Your task to perform on an android device: change timer sound Image 0: 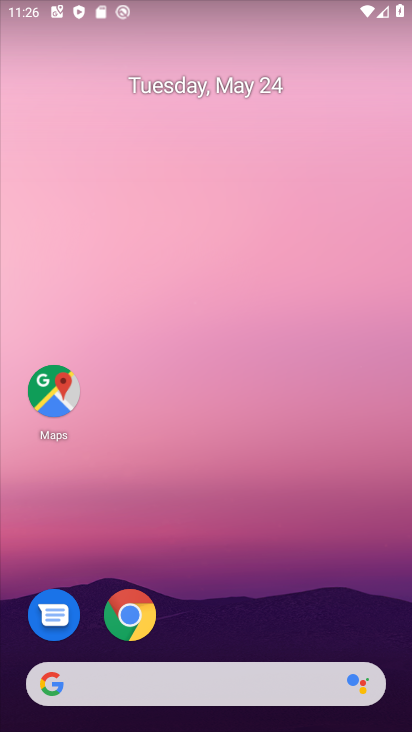
Step 0: drag from (228, 591) to (270, 41)
Your task to perform on an android device: change timer sound Image 1: 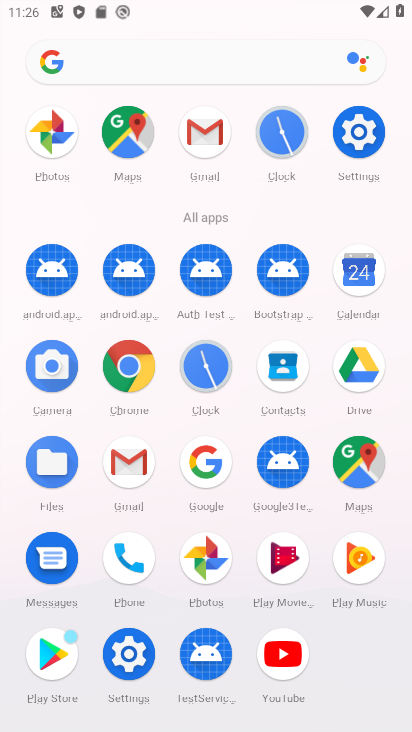
Step 1: click (207, 367)
Your task to perform on an android device: change timer sound Image 2: 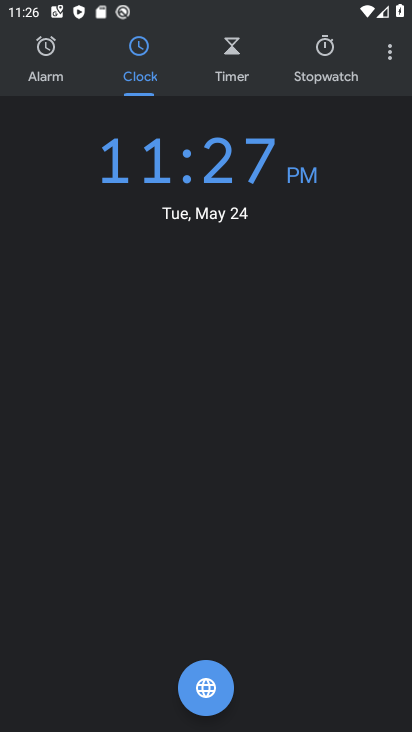
Step 2: click (389, 58)
Your task to perform on an android device: change timer sound Image 3: 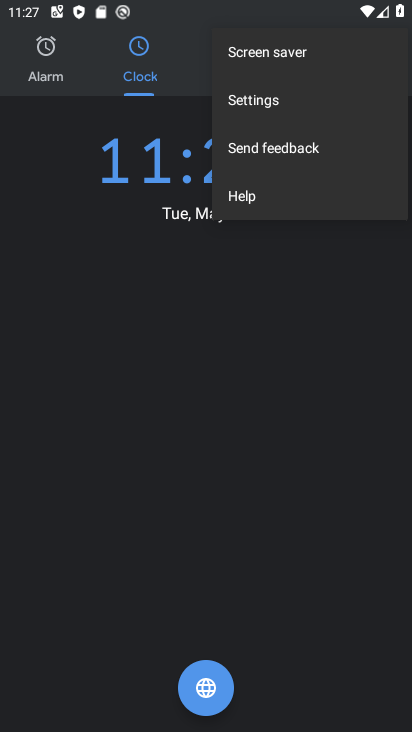
Step 3: click (140, 508)
Your task to perform on an android device: change timer sound Image 4: 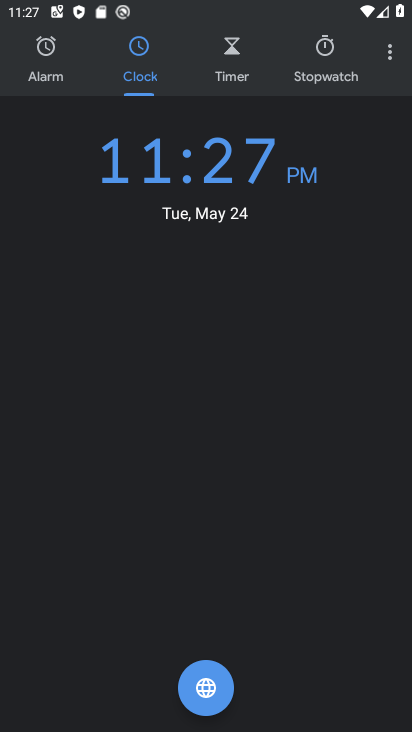
Step 4: click (227, 69)
Your task to perform on an android device: change timer sound Image 5: 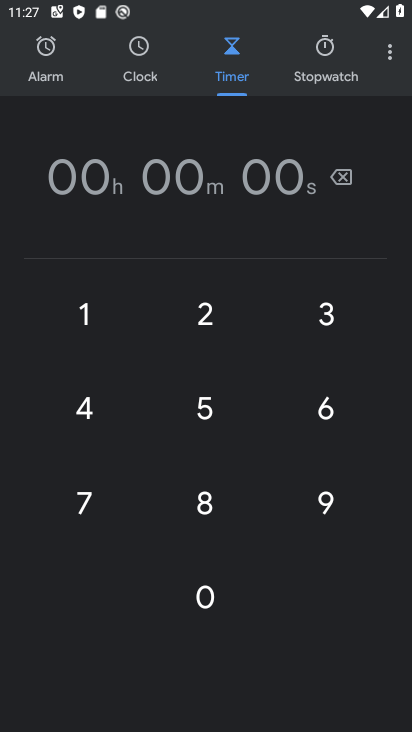
Step 5: click (387, 68)
Your task to perform on an android device: change timer sound Image 6: 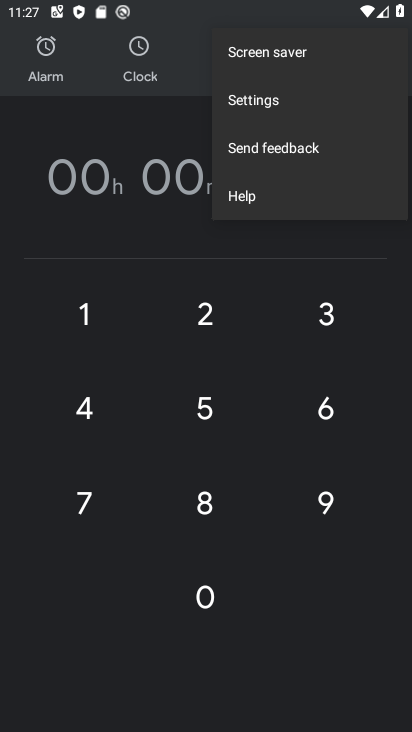
Step 6: click (273, 109)
Your task to perform on an android device: change timer sound Image 7: 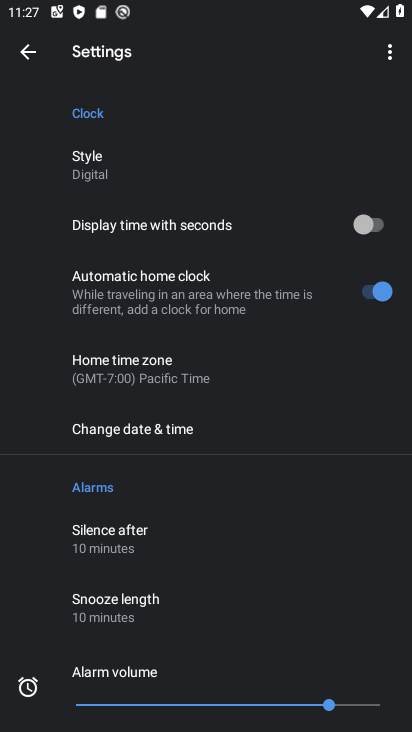
Step 7: drag from (212, 550) to (255, 63)
Your task to perform on an android device: change timer sound Image 8: 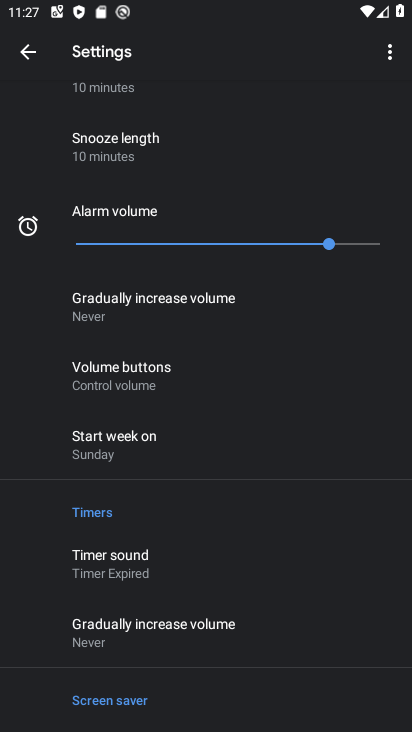
Step 8: click (138, 577)
Your task to perform on an android device: change timer sound Image 9: 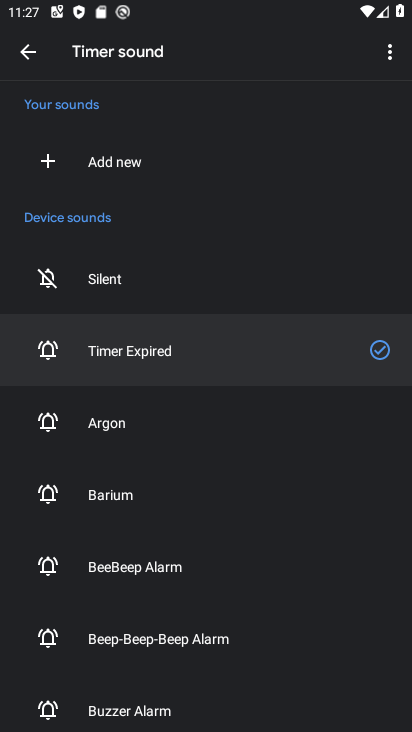
Step 9: click (124, 577)
Your task to perform on an android device: change timer sound Image 10: 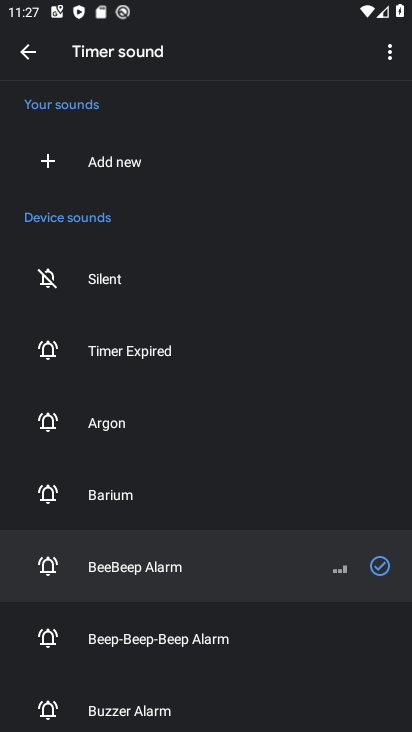
Step 10: task complete